Your task to perform on an android device: Go to internet settings Image 0: 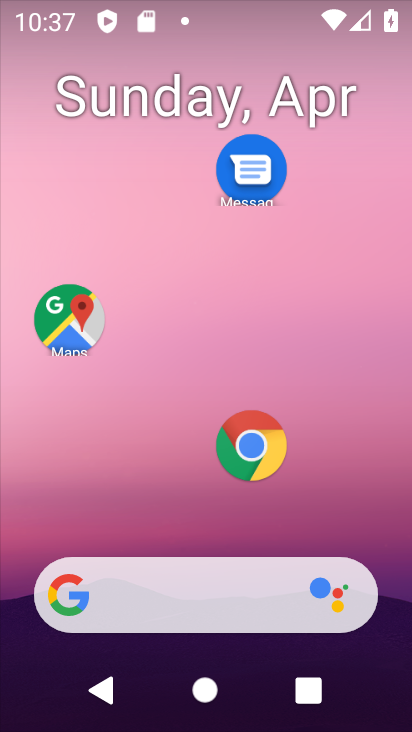
Step 0: press home button
Your task to perform on an android device: Go to internet settings Image 1: 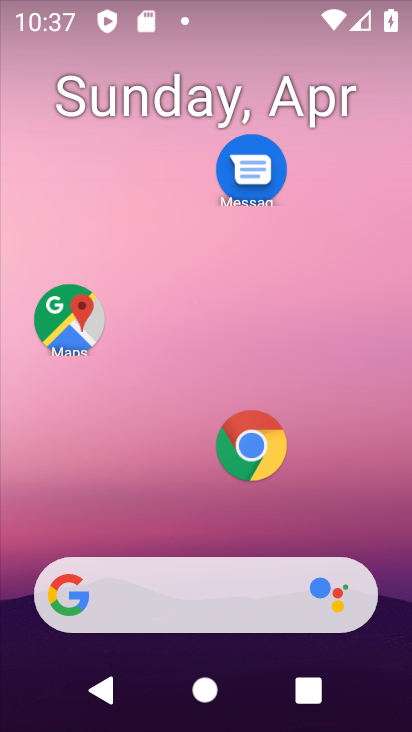
Step 1: drag from (208, 535) to (299, 70)
Your task to perform on an android device: Go to internet settings Image 2: 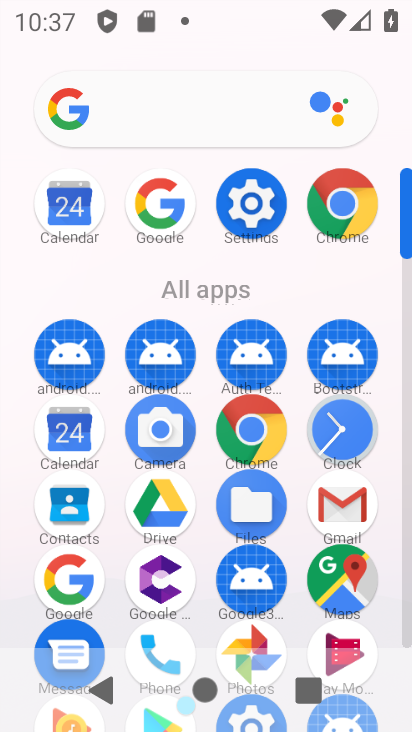
Step 2: click (253, 212)
Your task to perform on an android device: Go to internet settings Image 3: 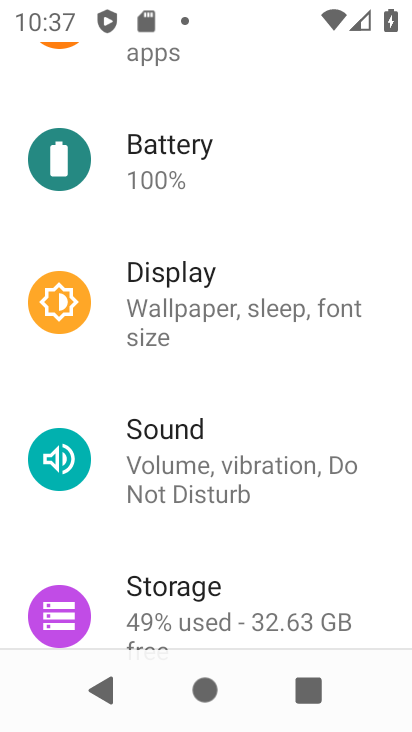
Step 3: drag from (315, 153) to (321, 452)
Your task to perform on an android device: Go to internet settings Image 4: 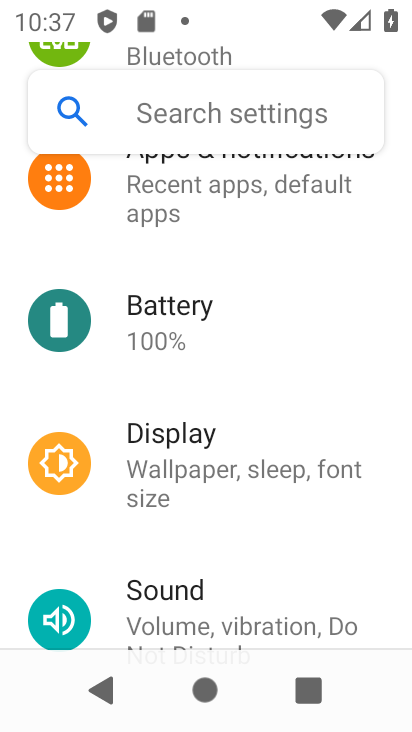
Step 4: drag from (280, 227) to (294, 516)
Your task to perform on an android device: Go to internet settings Image 5: 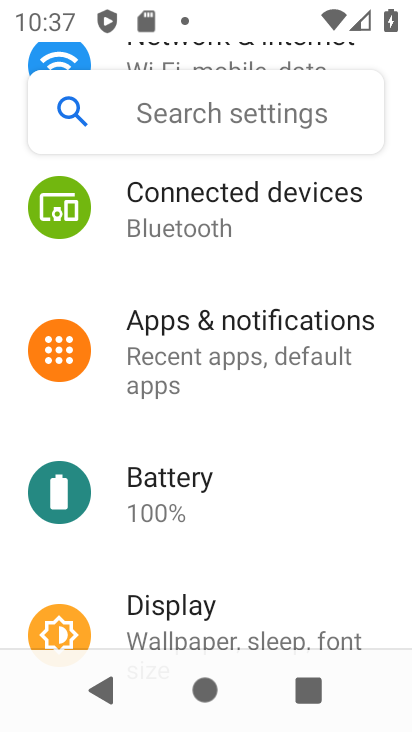
Step 5: drag from (320, 337) to (309, 521)
Your task to perform on an android device: Go to internet settings Image 6: 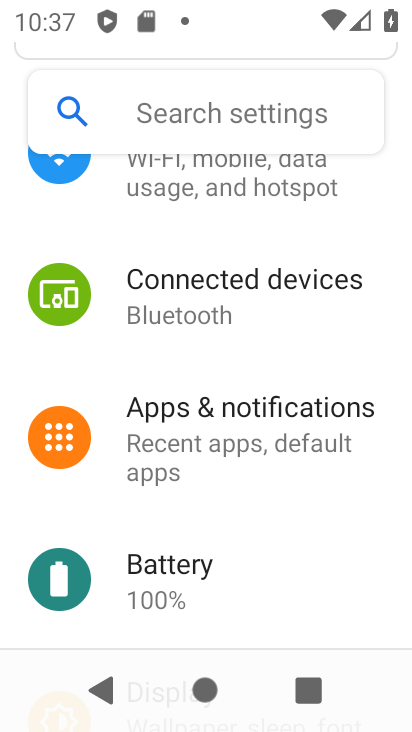
Step 6: drag from (283, 219) to (274, 639)
Your task to perform on an android device: Go to internet settings Image 7: 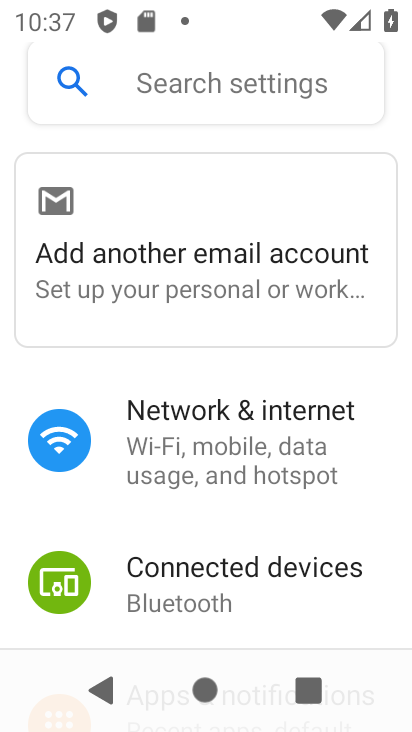
Step 7: click (263, 444)
Your task to perform on an android device: Go to internet settings Image 8: 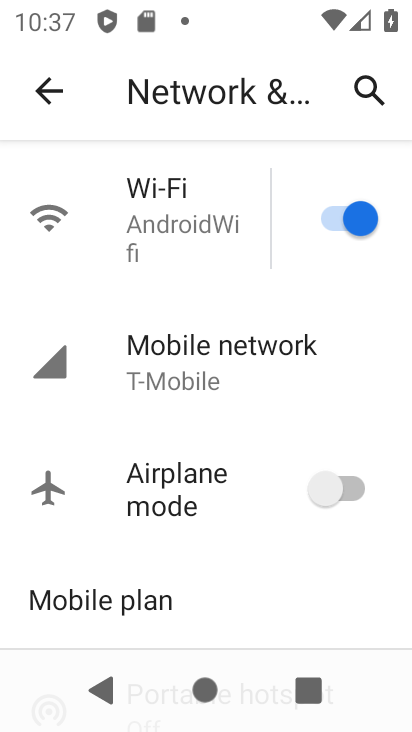
Step 8: task complete